Your task to perform on an android device: Open Chrome and go to settings Image 0: 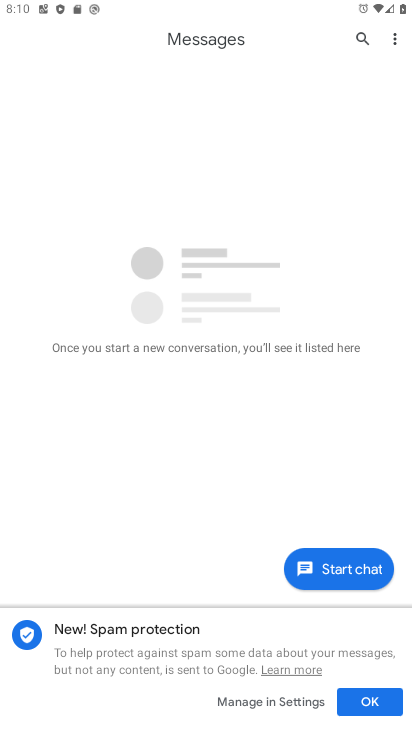
Step 0: press home button
Your task to perform on an android device: Open Chrome and go to settings Image 1: 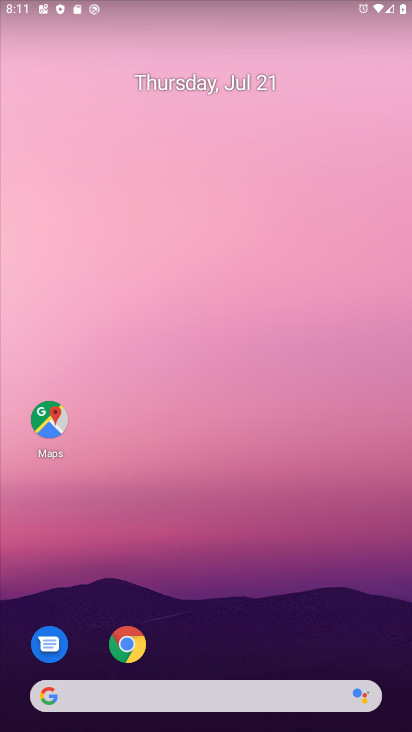
Step 1: click (140, 649)
Your task to perform on an android device: Open Chrome and go to settings Image 2: 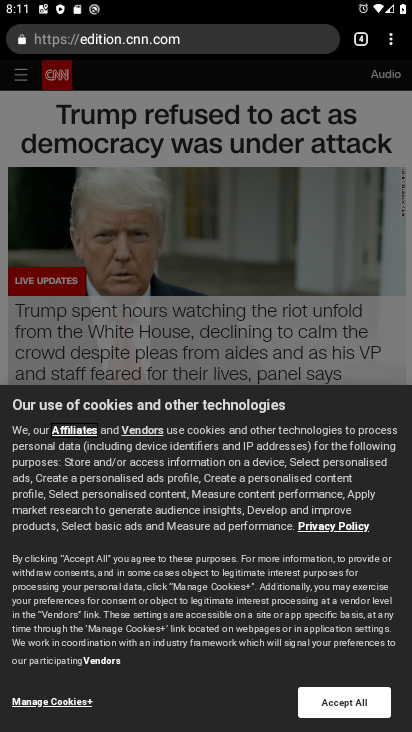
Step 2: click (400, 41)
Your task to perform on an android device: Open Chrome and go to settings Image 3: 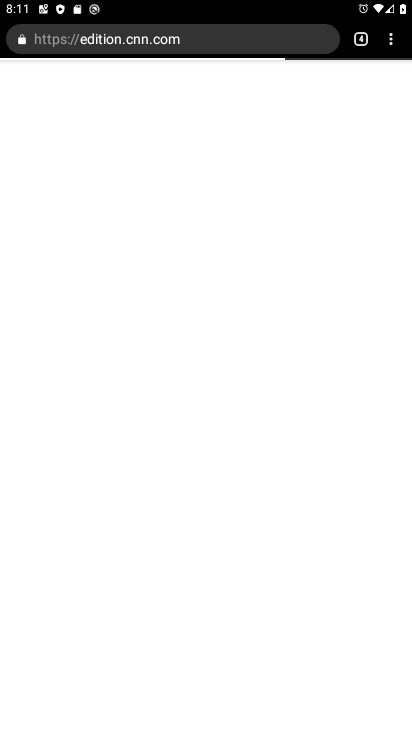
Step 3: click (397, 40)
Your task to perform on an android device: Open Chrome and go to settings Image 4: 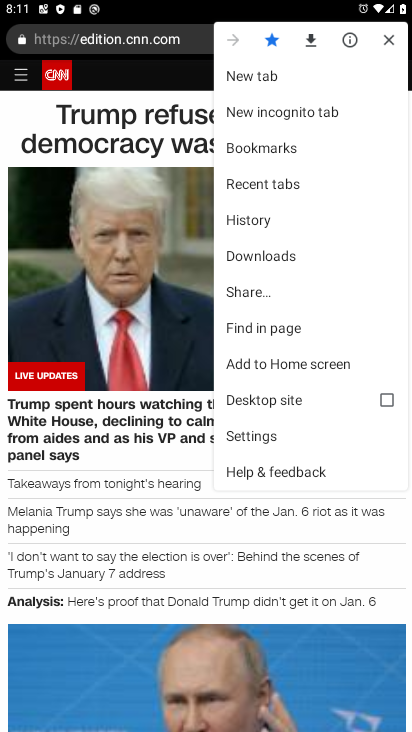
Step 4: click (255, 418)
Your task to perform on an android device: Open Chrome and go to settings Image 5: 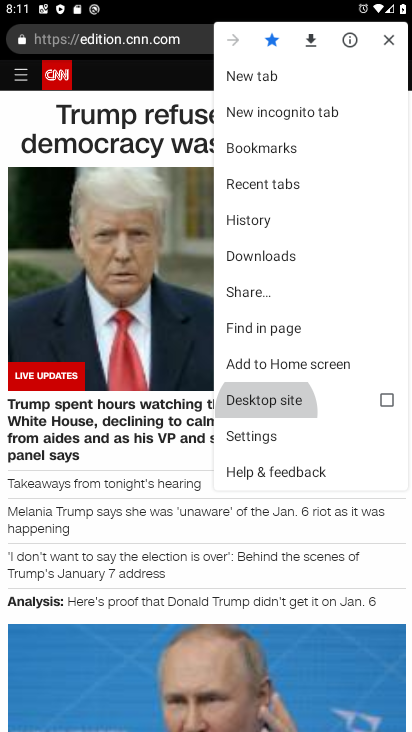
Step 5: click (255, 427)
Your task to perform on an android device: Open Chrome and go to settings Image 6: 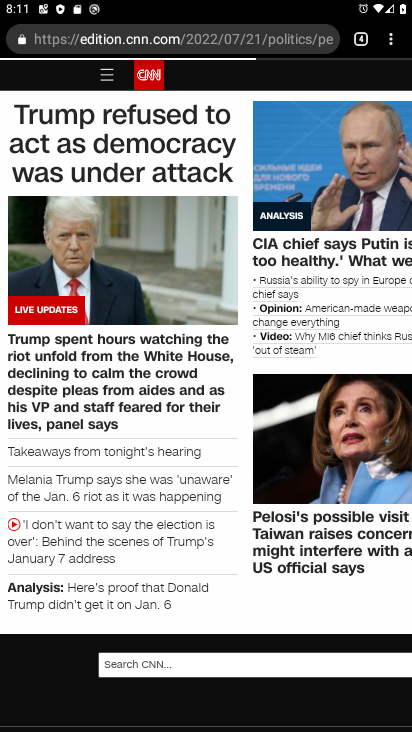
Step 6: click (391, 31)
Your task to perform on an android device: Open Chrome and go to settings Image 7: 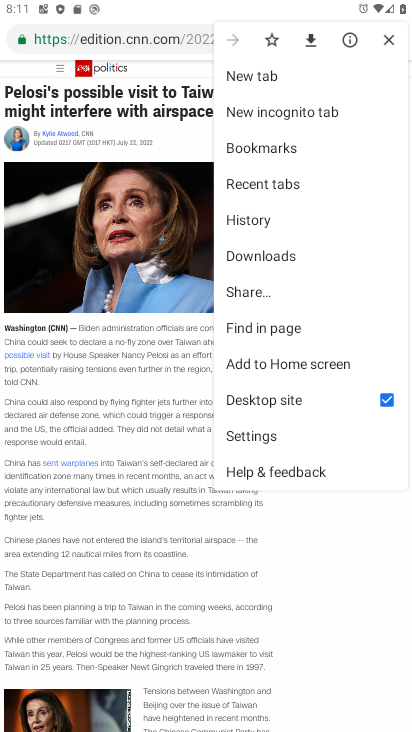
Step 7: click (261, 436)
Your task to perform on an android device: Open Chrome and go to settings Image 8: 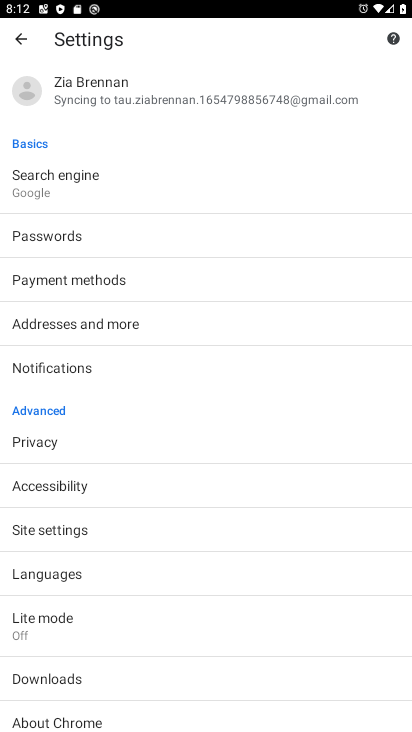
Step 8: task complete